Your task to perform on an android device: Search for Italian restaurants on Maps Image 0: 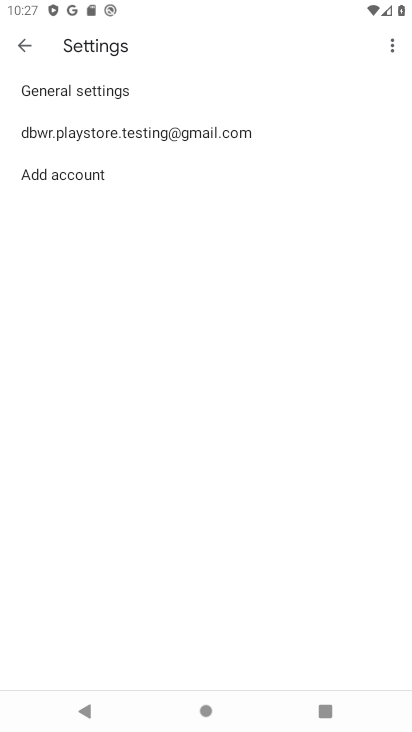
Step 0: click (26, 40)
Your task to perform on an android device: Search for Italian restaurants on Maps Image 1: 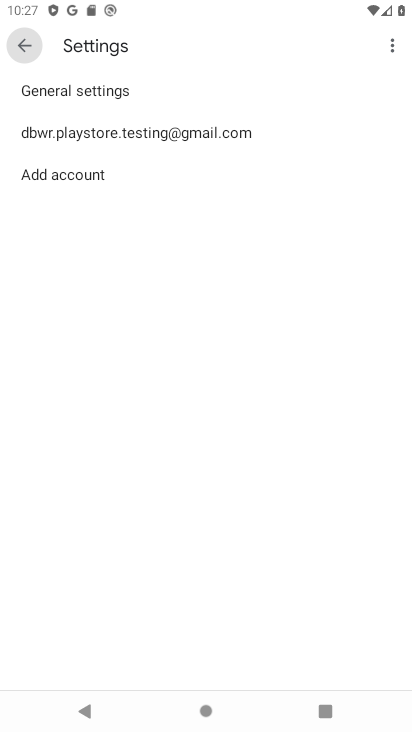
Step 1: click (26, 40)
Your task to perform on an android device: Search for Italian restaurants on Maps Image 2: 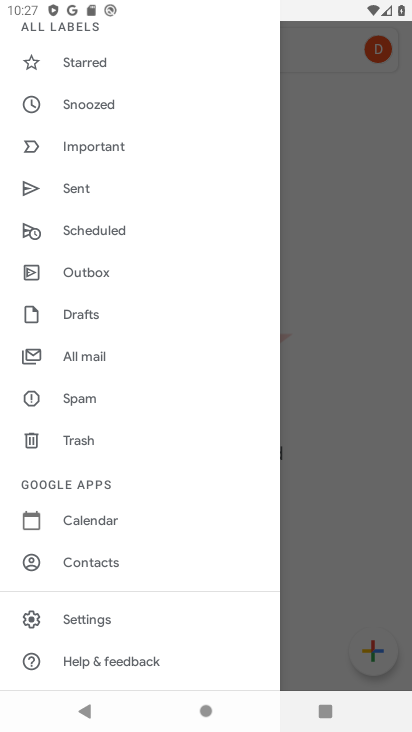
Step 2: press back button
Your task to perform on an android device: Search for Italian restaurants on Maps Image 3: 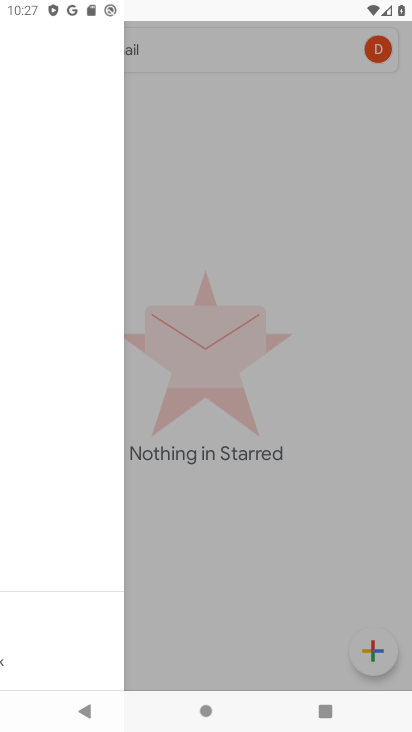
Step 3: press back button
Your task to perform on an android device: Search for Italian restaurants on Maps Image 4: 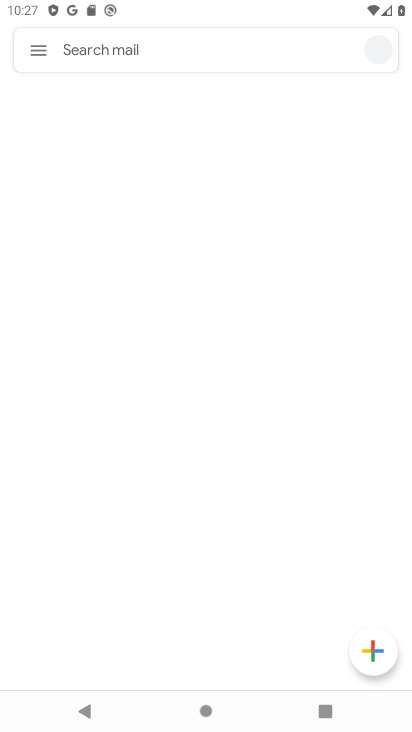
Step 4: press back button
Your task to perform on an android device: Search for Italian restaurants on Maps Image 5: 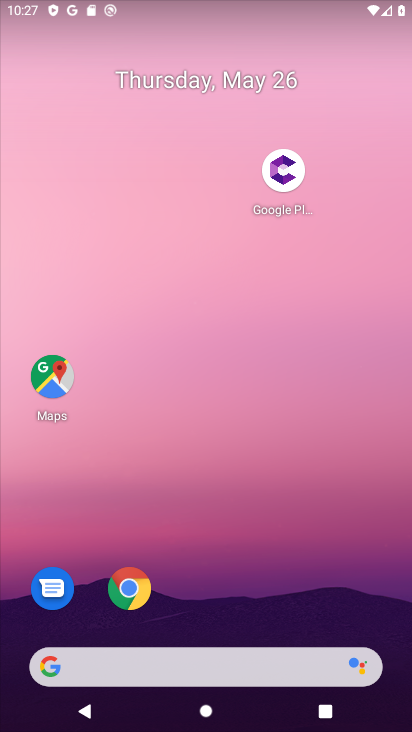
Step 5: drag from (277, 628) to (179, 49)
Your task to perform on an android device: Search for Italian restaurants on Maps Image 6: 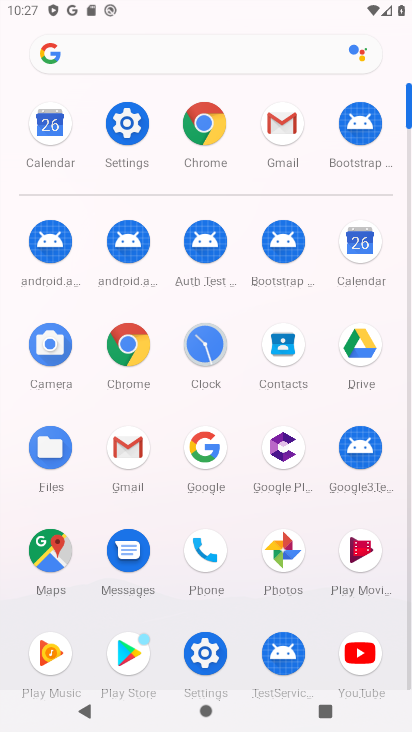
Step 6: click (48, 532)
Your task to perform on an android device: Search for Italian restaurants on Maps Image 7: 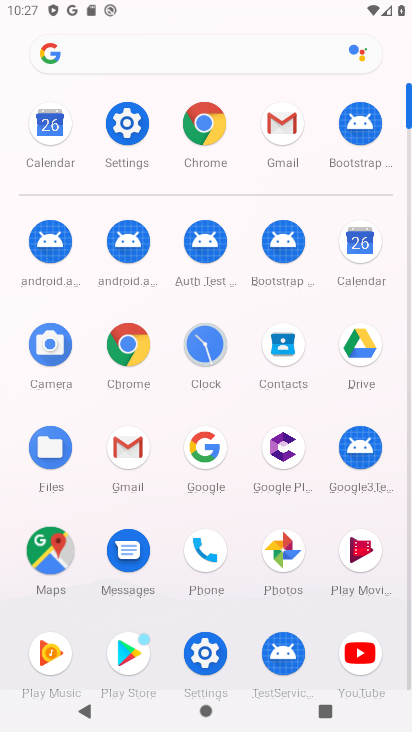
Step 7: click (48, 532)
Your task to perform on an android device: Search for Italian restaurants on Maps Image 8: 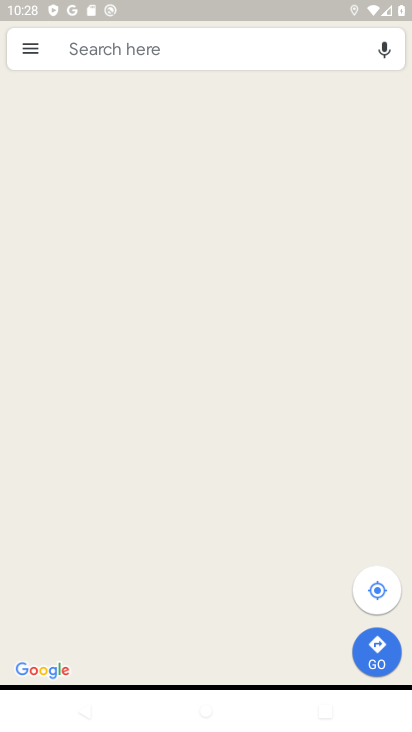
Step 8: click (73, 51)
Your task to perform on an android device: Search for Italian restaurants on Maps Image 9: 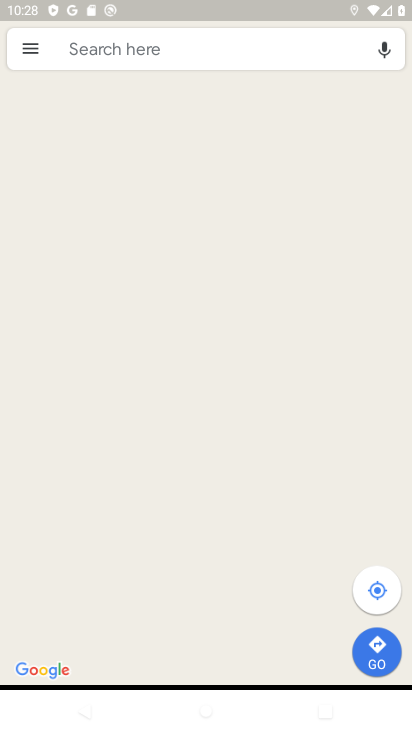
Step 9: click (73, 51)
Your task to perform on an android device: Search for Italian restaurants on Maps Image 10: 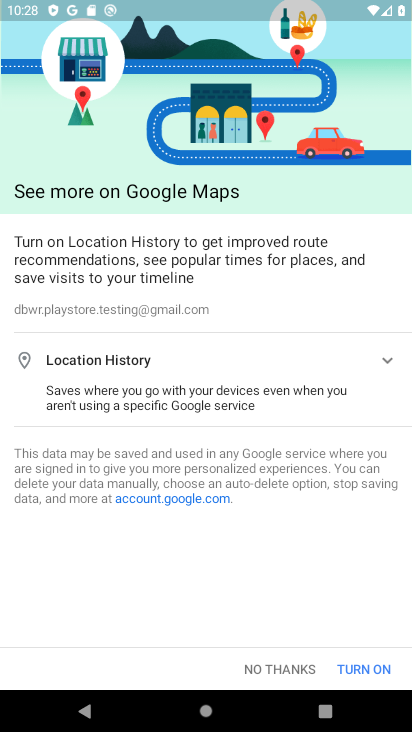
Step 10: click (304, 664)
Your task to perform on an android device: Search for Italian restaurants on Maps Image 11: 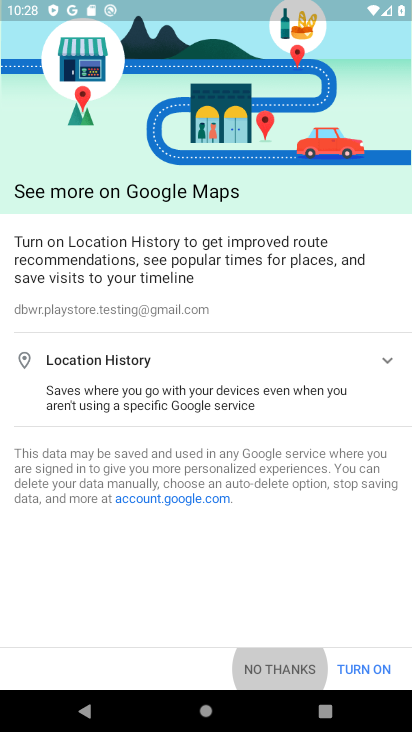
Step 11: click (297, 659)
Your task to perform on an android device: Search for Italian restaurants on Maps Image 12: 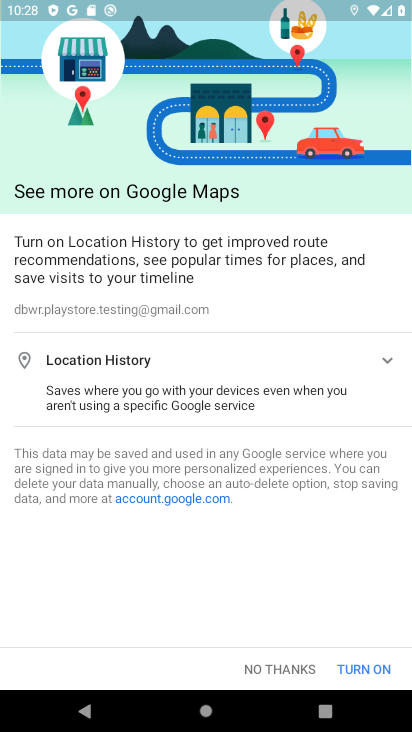
Step 12: click (293, 655)
Your task to perform on an android device: Search for Italian restaurants on Maps Image 13: 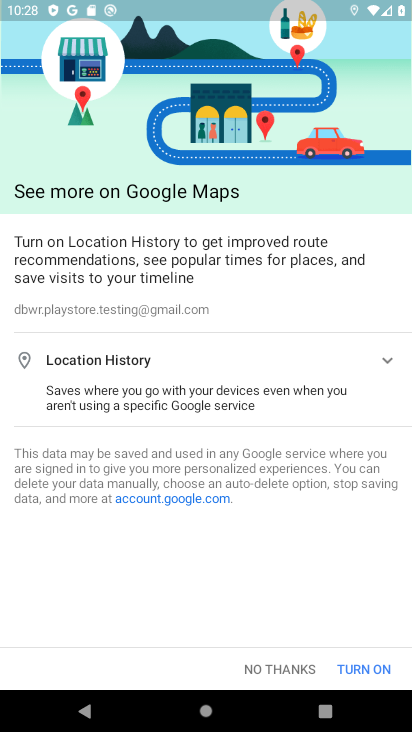
Step 13: click (292, 652)
Your task to perform on an android device: Search for Italian restaurants on Maps Image 14: 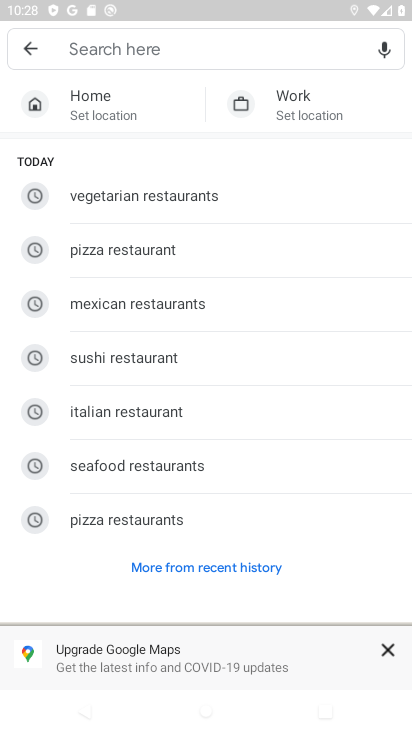
Step 14: click (68, 44)
Your task to perform on an android device: Search for Italian restaurants on Maps Image 15: 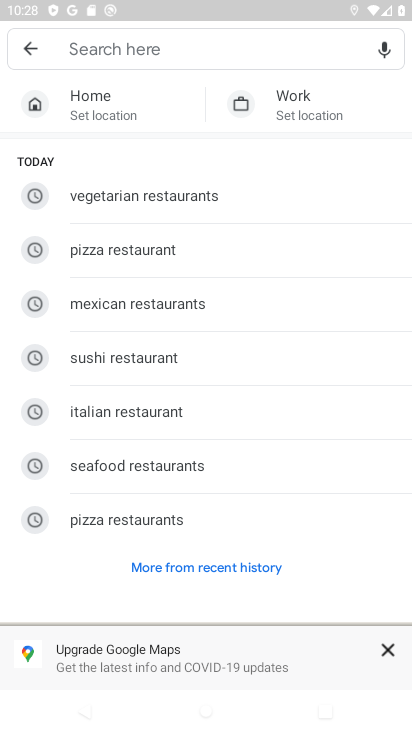
Step 15: click (121, 414)
Your task to perform on an android device: Search for Italian restaurants on Maps Image 16: 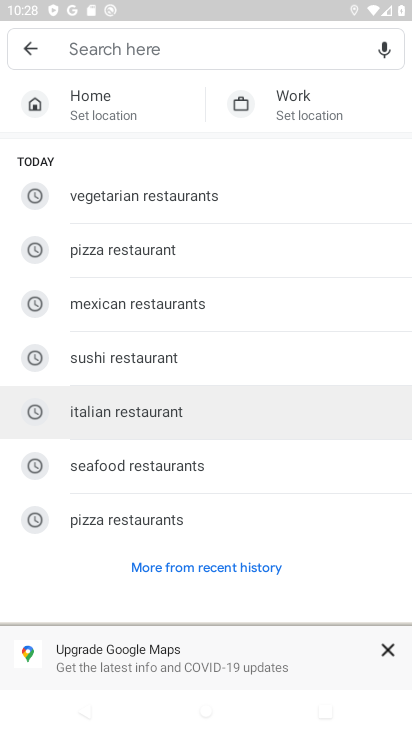
Step 16: click (121, 413)
Your task to perform on an android device: Search for Italian restaurants on Maps Image 17: 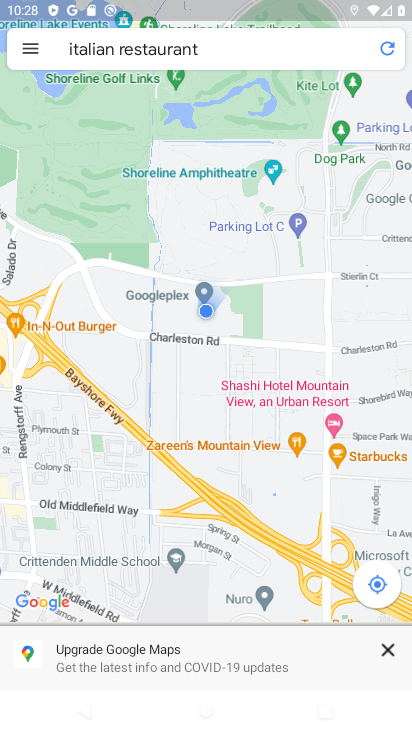
Step 17: click (121, 413)
Your task to perform on an android device: Search for Italian restaurants on Maps Image 18: 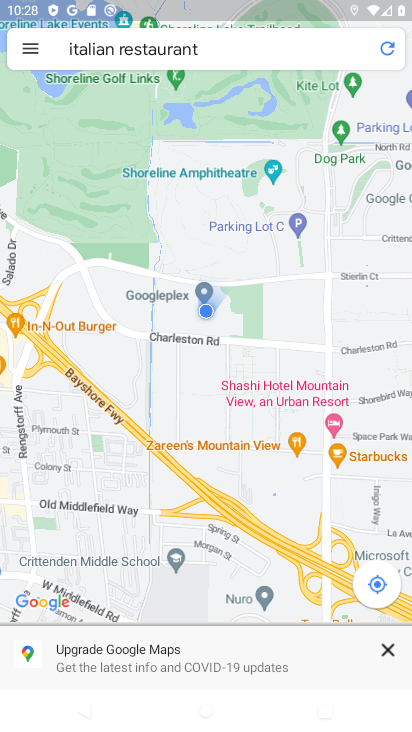
Step 18: click (121, 413)
Your task to perform on an android device: Search for Italian restaurants on Maps Image 19: 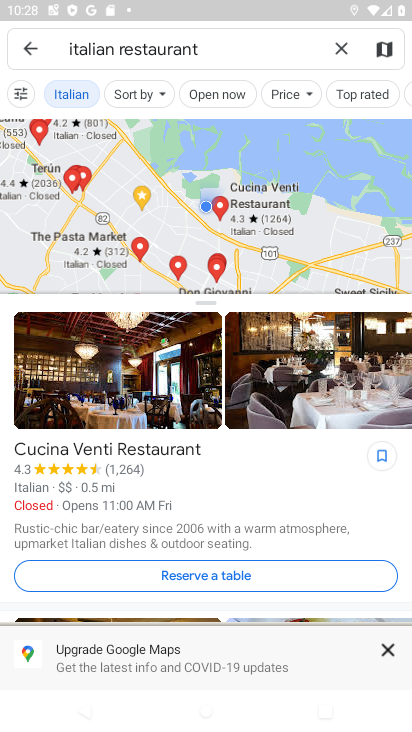
Step 19: task complete